Your task to perform on an android device: install app "Etsy: Buy & Sell Unique Items" Image 0: 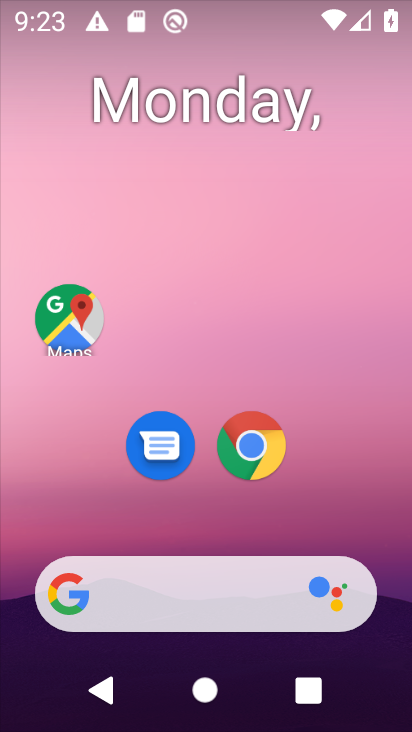
Step 0: drag from (375, 609) to (148, 33)
Your task to perform on an android device: install app "Etsy: Buy & Sell Unique Items" Image 1: 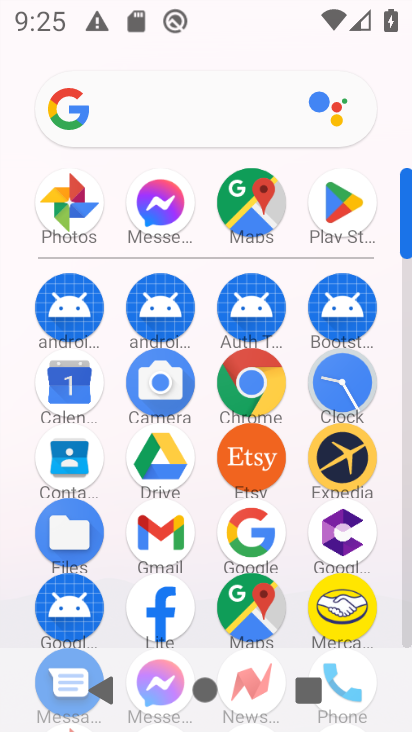
Step 1: click (357, 200)
Your task to perform on an android device: install app "Etsy: Buy & Sell Unique Items" Image 2: 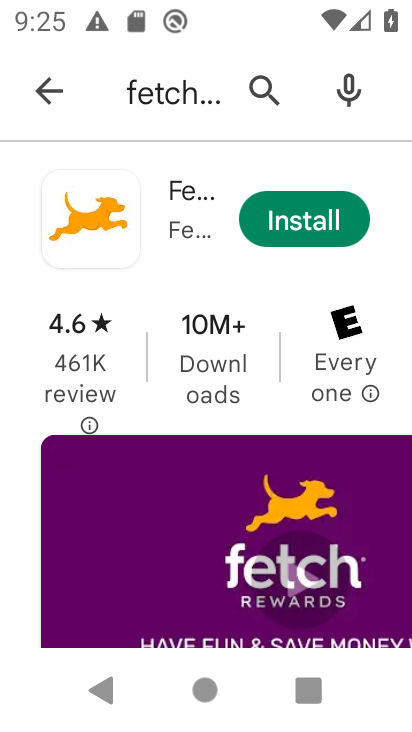
Step 2: press back button
Your task to perform on an android device: install app "Etsy: Buy & Sell Unique Items" Image 3: 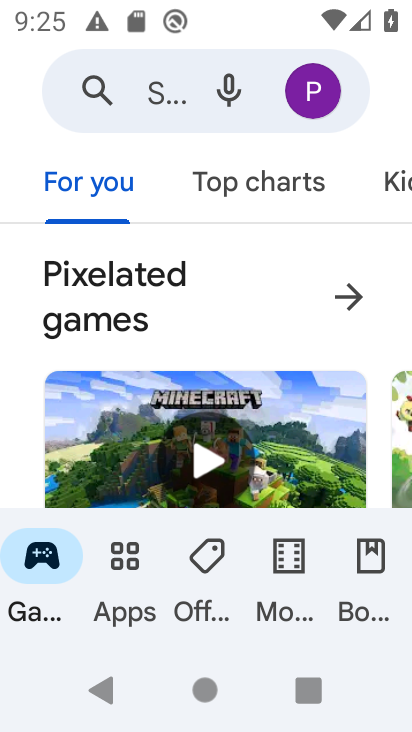
Step 3: click (143, 99)
Your task to perform on an android device: install app "Etsy: Buy & Sell Unique Items" Image 4: 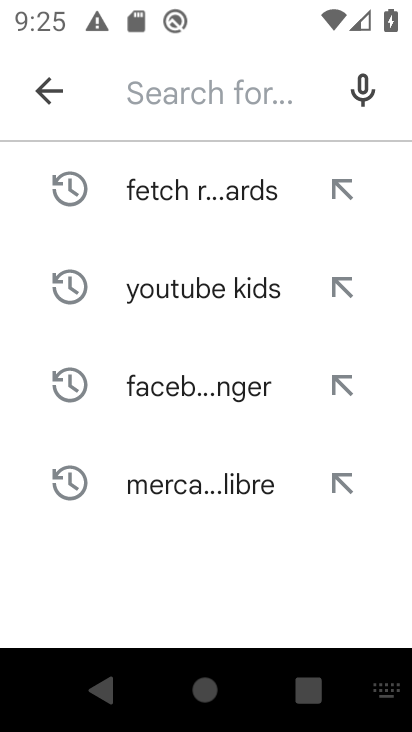
Step 4: type "Etsy: Buy & Sell Unique Items"
Your task to perform on an android device: install app "Etsy: Buy & Sell Unique Items" Image 5: 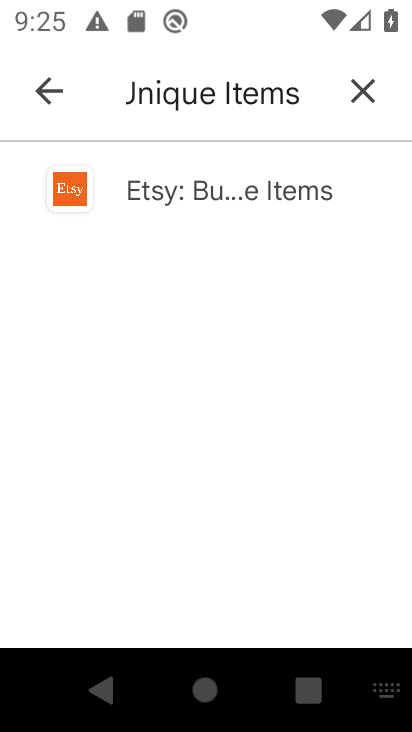
Step 5: click (190, 198)
Your task to perform on an android device: install app "Etsy: Buy & Sell Unique Items" Image 6: 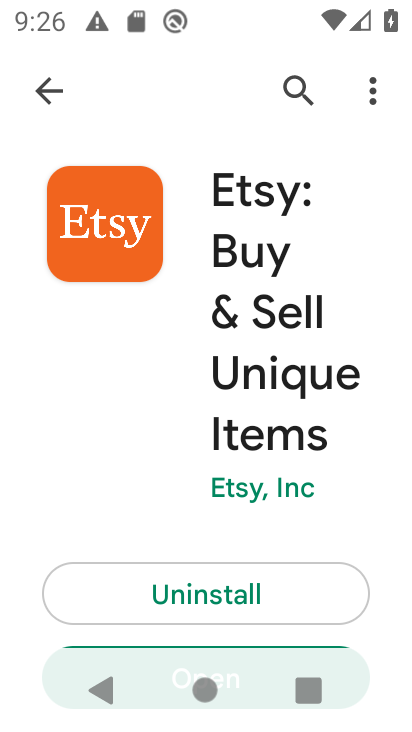
Step 6: task complete